Your task to perform on an android device: What's the weather? Image 0: 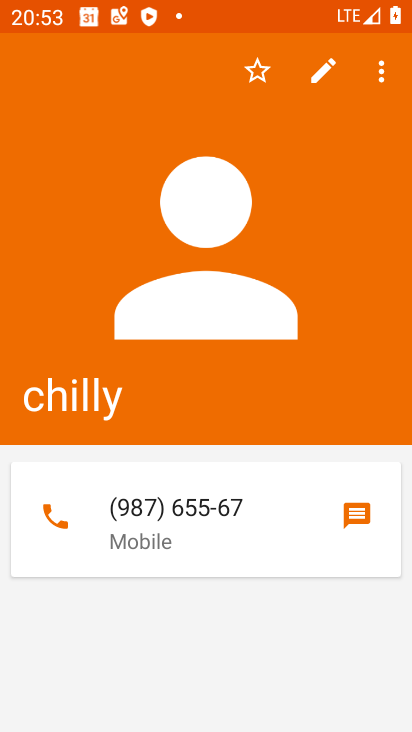
Step 0: press home button
Your task to perform on an android device: What's the weather? Image 1: 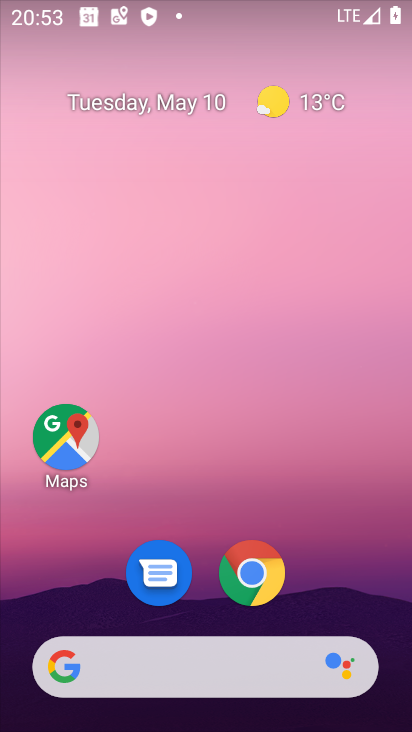
Step 1: click (321, 106)
Your task to perform on an android device: What's the weather? Image 2: 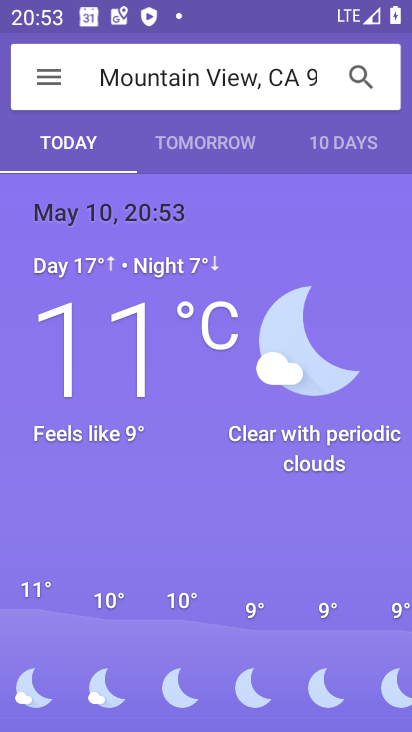
Step 2: task complete